Your task to perform on an android device: check battery use Image 0: 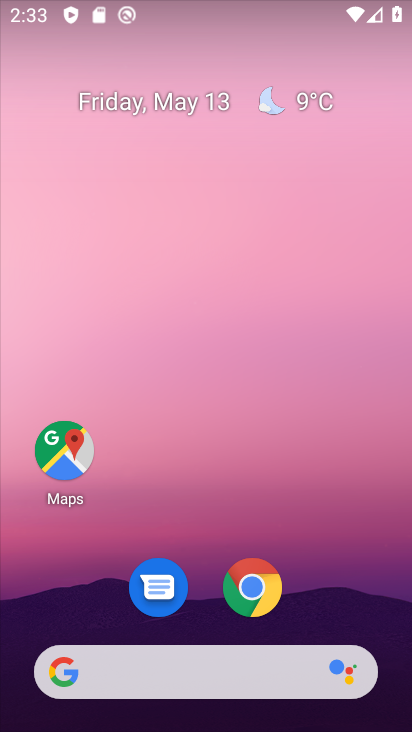
Step 0: drag from (336, 505) to (337, 115)
Your task to perform on an android device: check battery use Image 1: 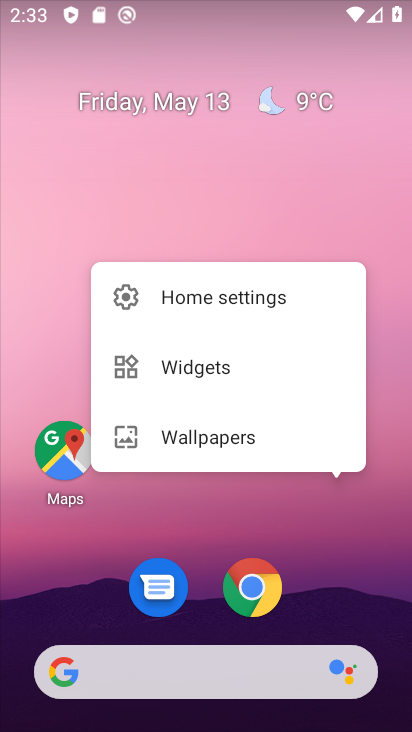
Step 1: drag from (322, 533) to (352, 101)
Your task to perform on an android device: check battery use Image 2: 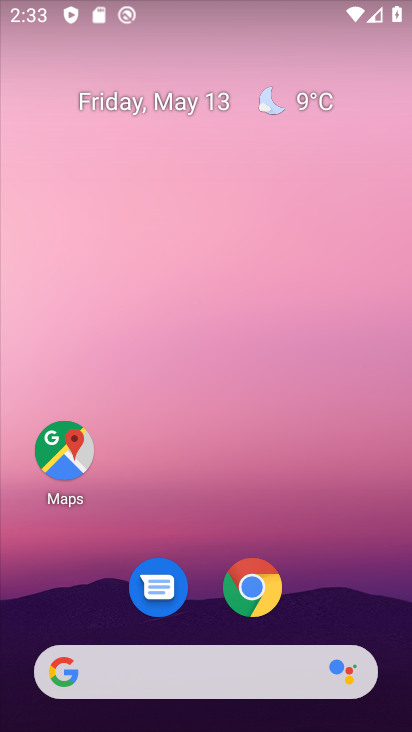
Step 2: drag from (323, 500) to (338, 203)
Your task to perform on an android device: check battery use Image 3: 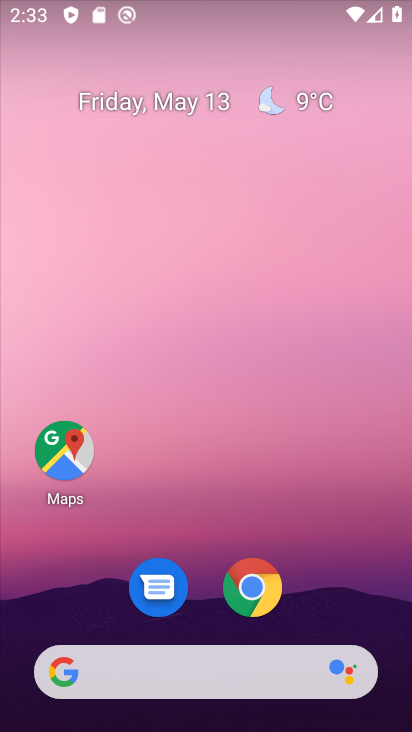
Step 3: drag from (325, 575) to (324, 120)
Your task to perform on an android device: check battery use Image 4: 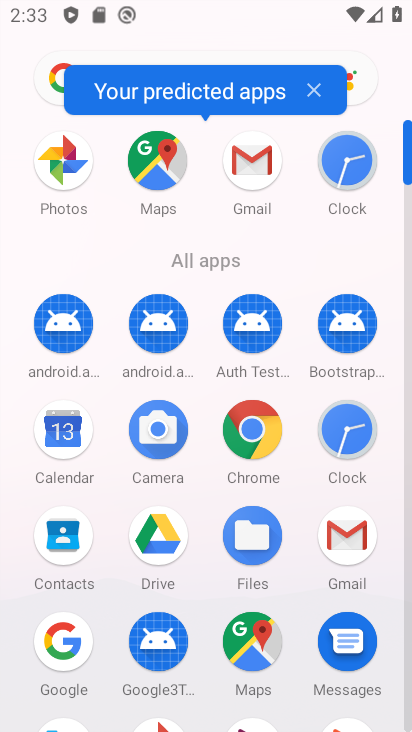
Step 4: drag from (216, 607) to (243, 392)
Your task to perform on an android device: check battery use Image 5: 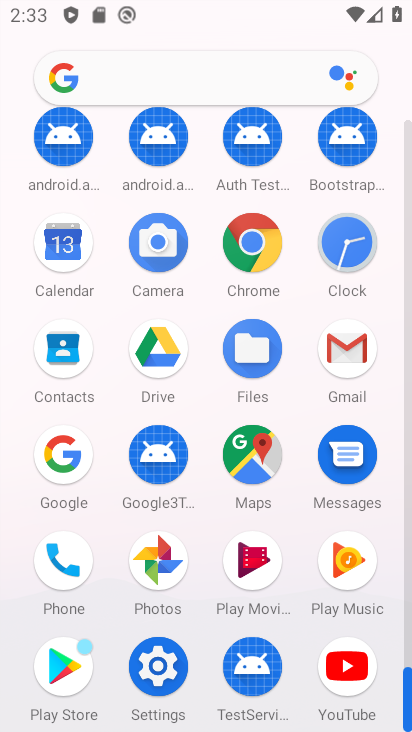
Step 5: click (176, 657)
Your task to perform on an android device: check battery use Image 6: 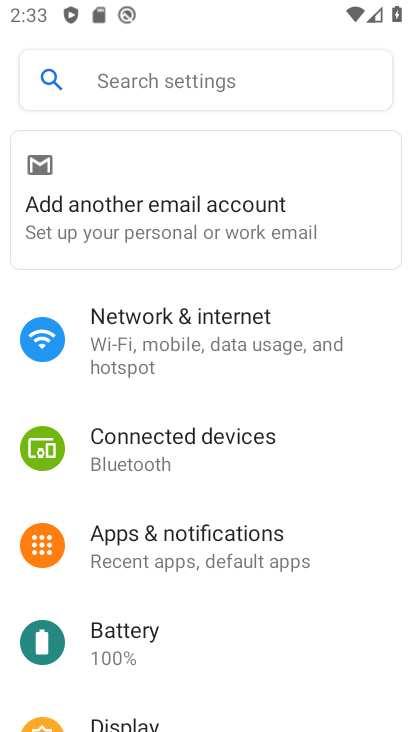
Step 6: click (130, 656)
Your task to perform on an android device: check battery use Image 7: 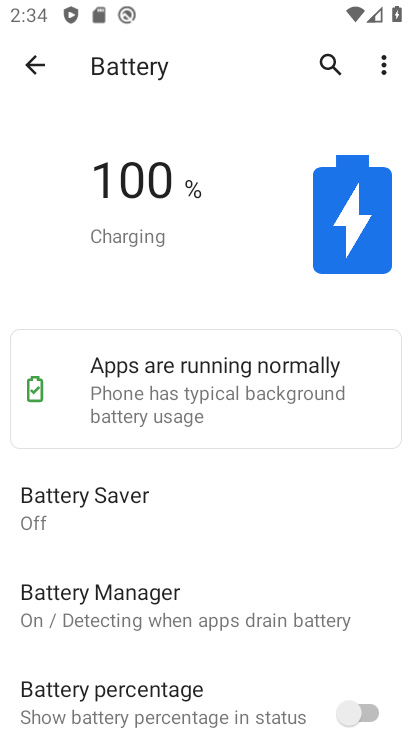
Step 7: task complete